Your task to perform on an android device: turn pop-ups off in chrome Image 0: 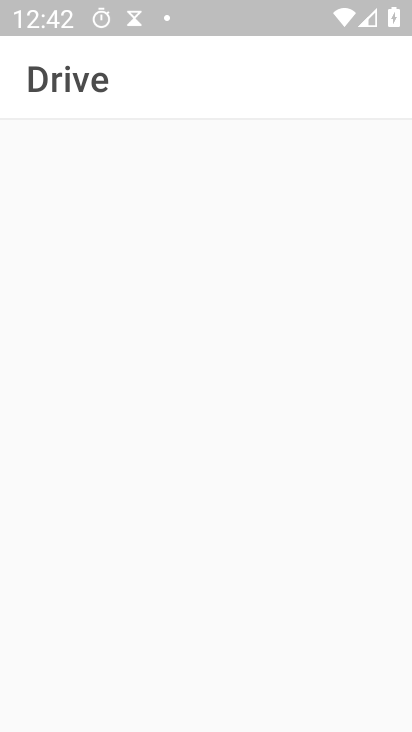
Step 0: drag from (353, 509) to (407, 203)
Your task to perform on an android device: turn pop-ups off in chrome Image 1: 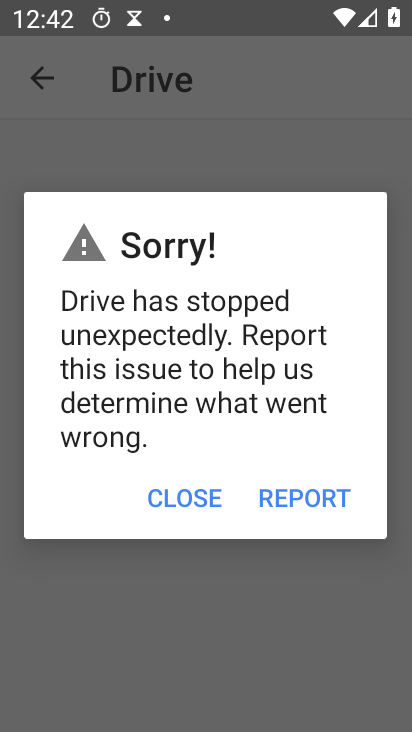
Step 1: press home button
Your task to perform on an android device: turn pop-ups off in chrome Image 2: 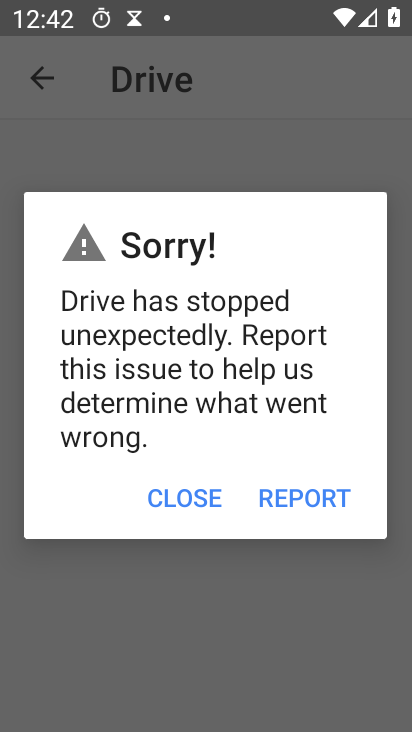
Step 2: drag from (407, 203) to (405, 371)
Your task to perform on an android device: turn pop-ups off in chrome Image 3: 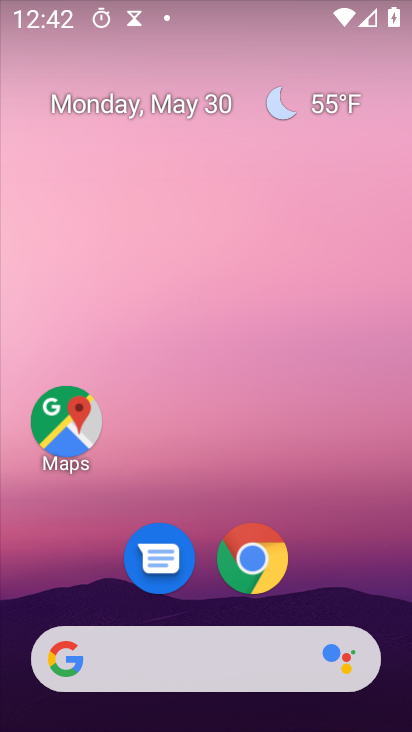
Step 3: drag from (321, 538) to (353, 187)
Your task to perform on an android device: turn pop-ups off in chrome Image 4: 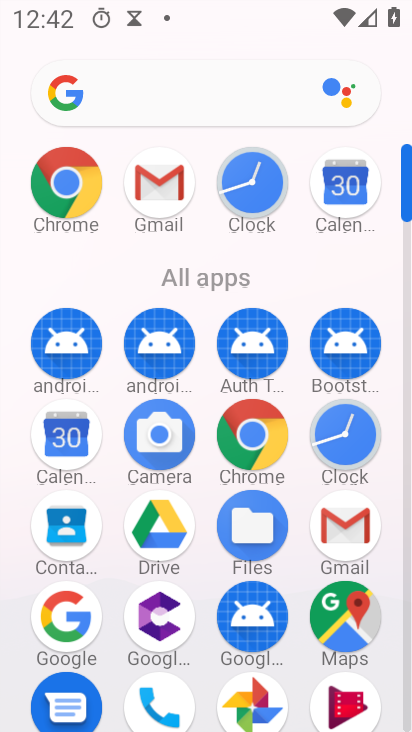
Step 4: click (60, 198)
Your task to perform on an android device: turn pop-ups off in chrome Image 5: 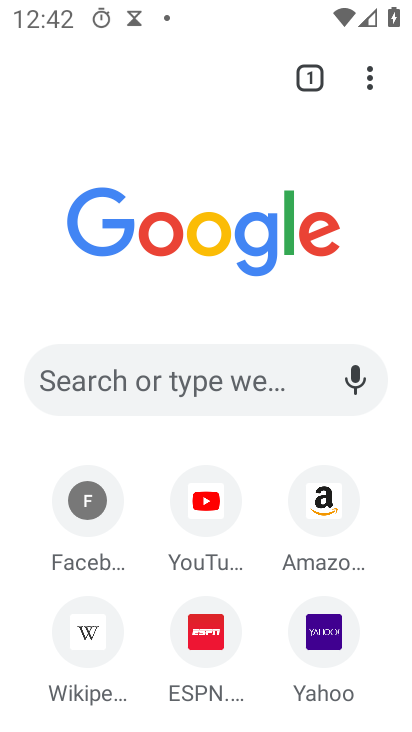
Step 5: drag from (369, 96) to (146, 629)
Your task to perform on an android device: turn pop-ups off in chrome Image 6: 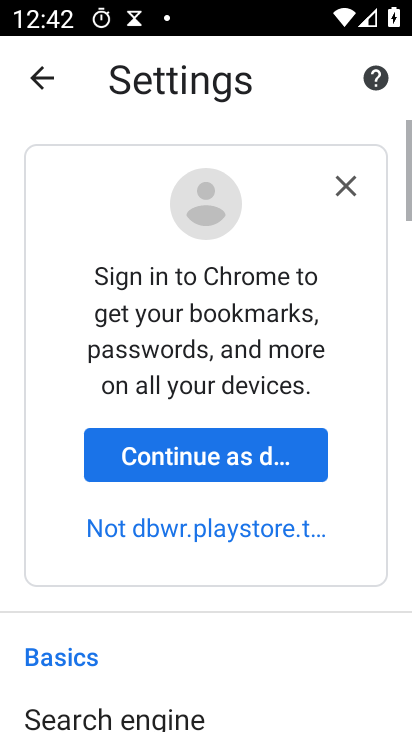
Step 6: drag from (146, 625) to (231, 171)
Your task to perform on an android device: turn pop-ups off in chrome Image 7: 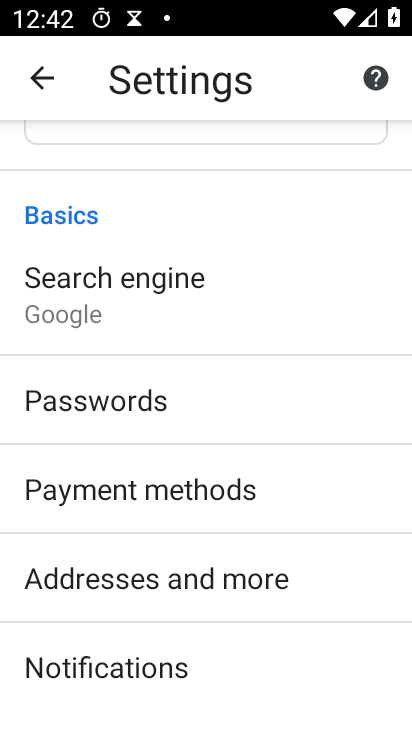
Step 7: drag from (185, 644) to (282, 208)
Your task to perform on an android device: turn pop-ups off in chrome Image 8: 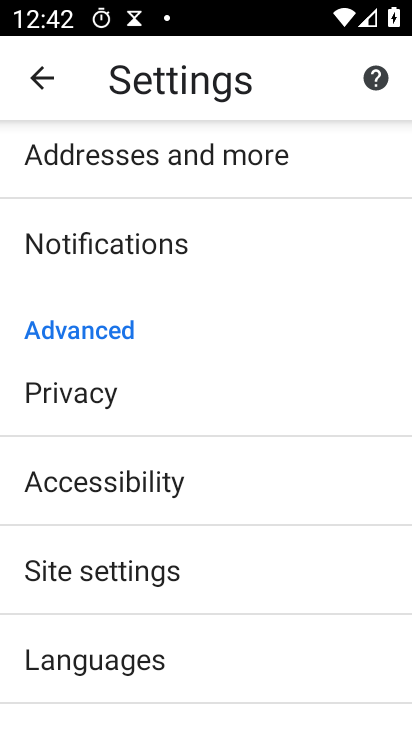
Step 8: click (151, 574)
Your task to perform on an android device: turn pop-ups off in chrome Image 9: 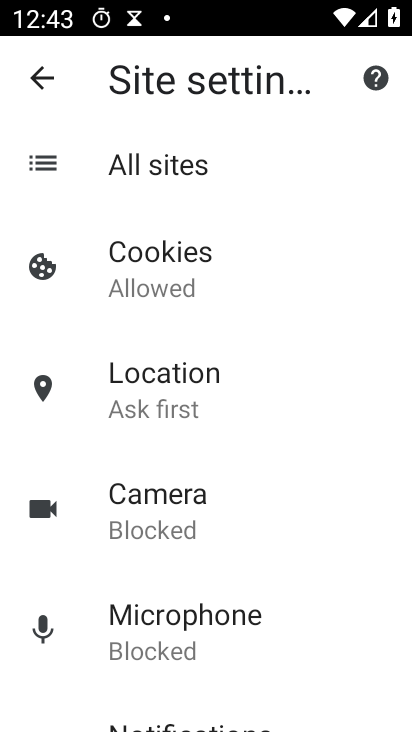
Step 9: drag from (253, 614) to (321, 196)
Your task to perform on an android device: turn pop-ups off in chrome Image 10: 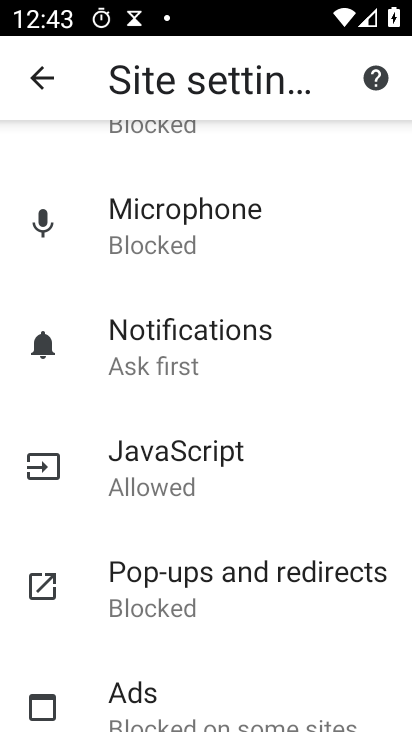
Step 10: click (232, 580)
Your task to perform on an android device: turn pop-ups off in chrome Image 11: 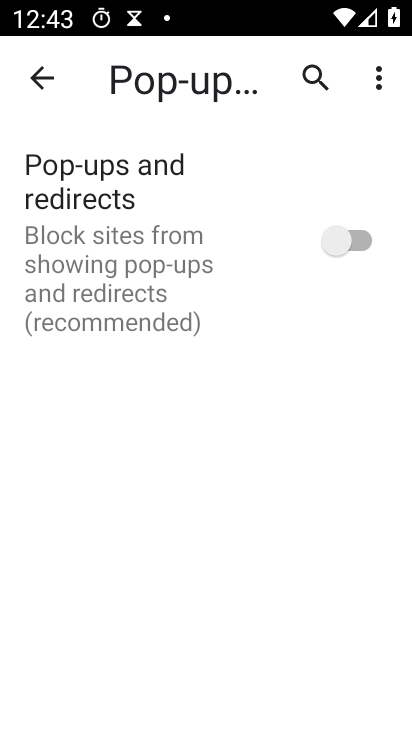
Step 11: task complete